Your task to perform on an android device: toggle wifi Image 0: 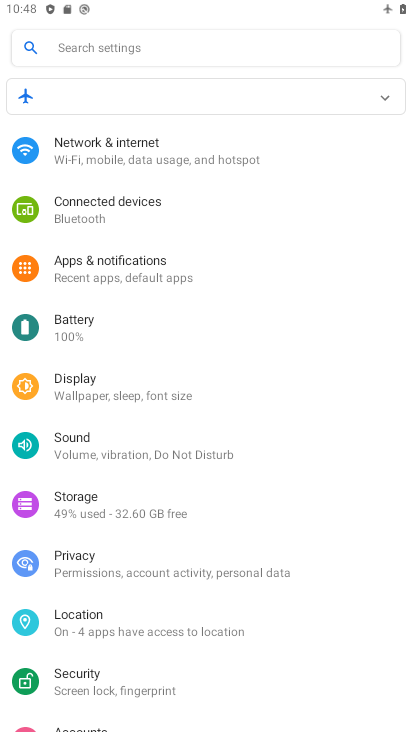
Step 0: click (197, 152)
Your task to perform on an android device: toggle wifi Image 1: 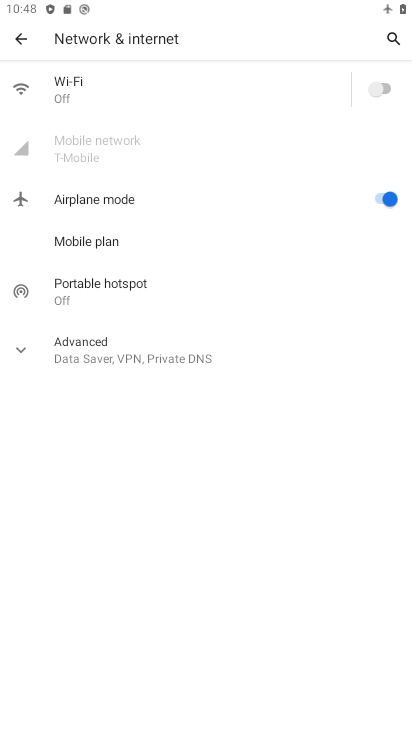
Step 1: click (384, 89)
Your task to perform on an android device: toggle wifi Image 2: 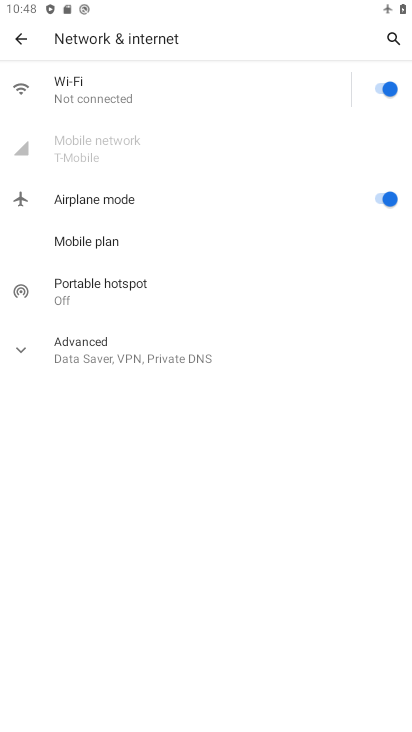
Step 2: click (383, 194)
Your task to perform on an android device: toggle wifi Image 3: 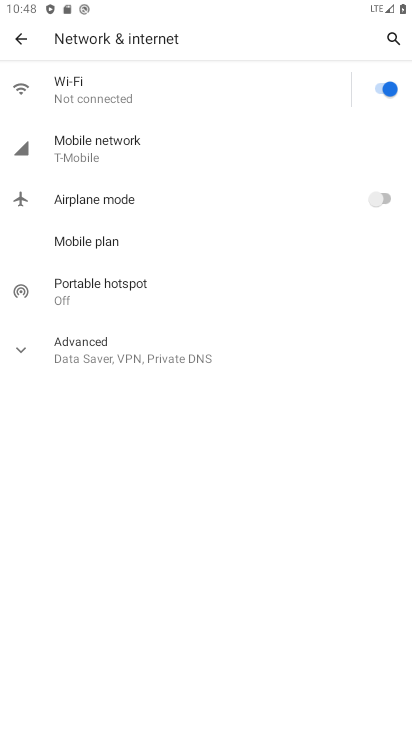
Step 3: task complete